Your task to perform on an android device: Open wifi settings Image 0: 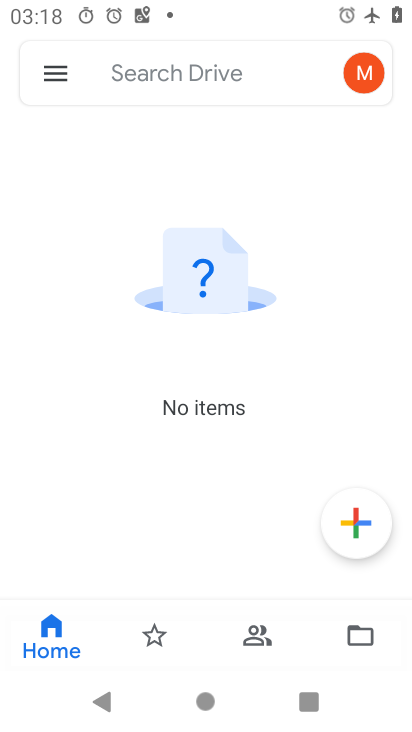
Step 0: press home button
Your task to perform on an android device: Open wifi settings Image 1: 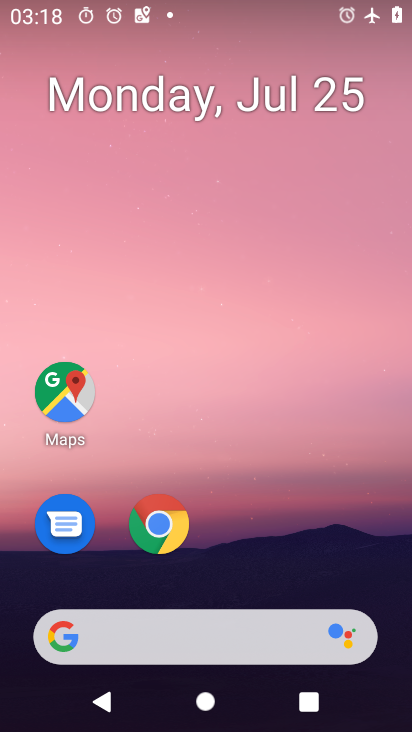
Step 1: drag from (243, 595) to (237, 10)
Your task to perform on an android device: Open wifi settings Image 2: 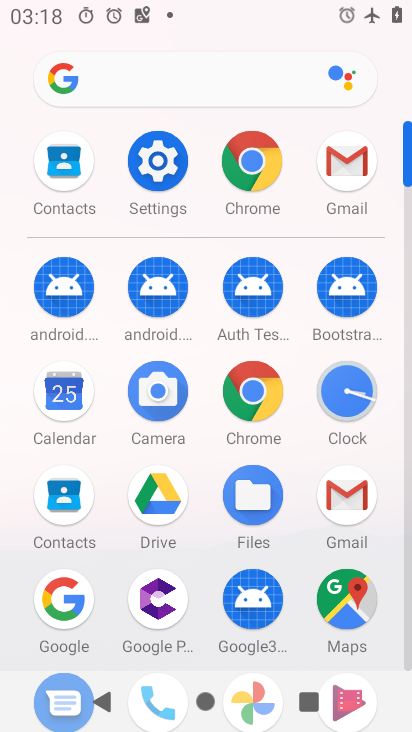
Step 2: click (156, 160)
Your task to perform on an android device: Open wifi settings Image 3: 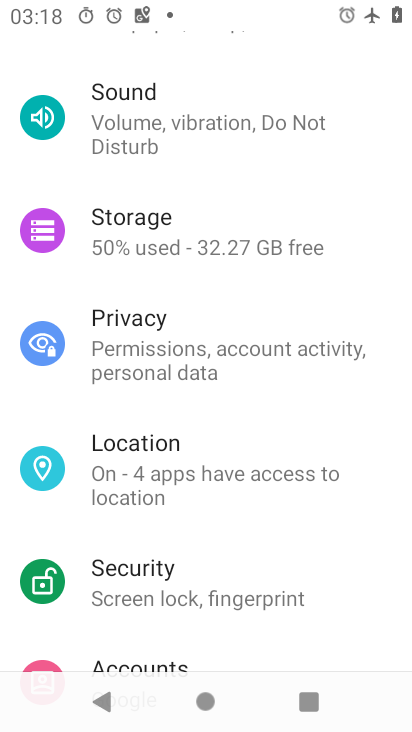
Step 3: drag from (318, 160) to (254, 712)
Your task to perform on an android device: Open wifi settings Image 4: 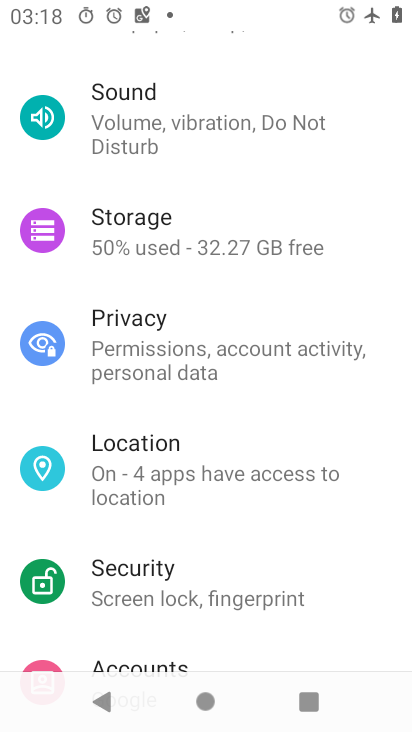
Step 4: drag from (238, 151) to (217, 663)
Your task to perform on an android device: Open wifi settings Image 5: 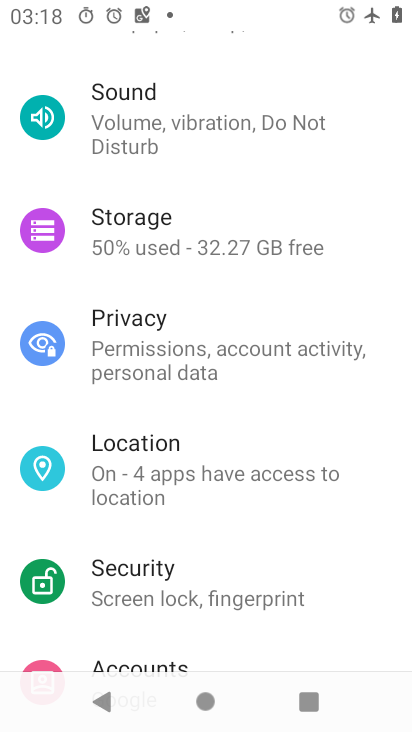
Step 5: drag from (237, 179) to (79, 724)
Your task to perform on an android device: Open wifi settings Image 6: 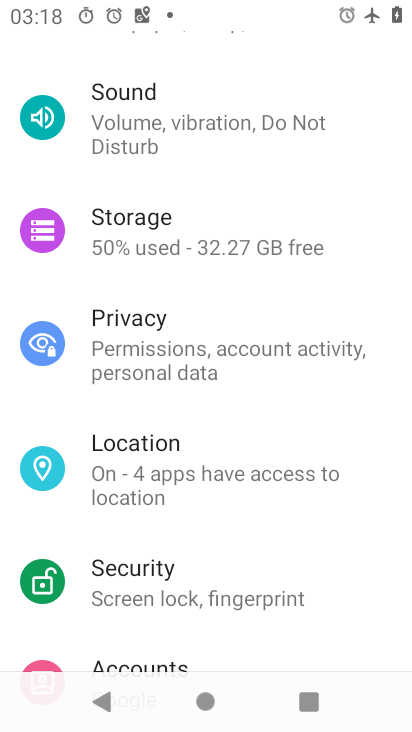
Step 6: drag from (276, 87) to (213, 688)
Your task to perform on an android device: Open wifi settings Image 7: 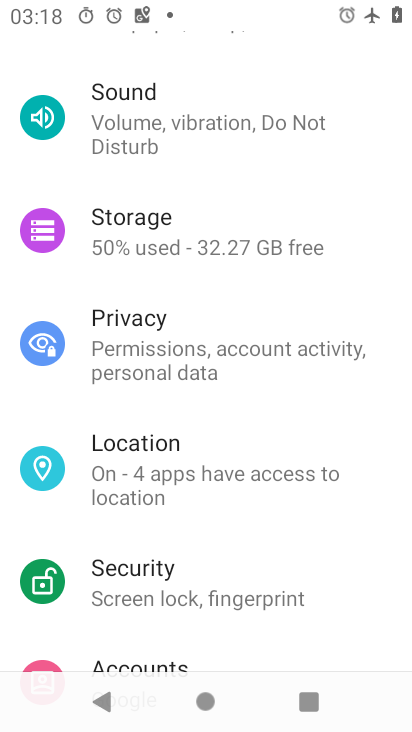
Step 7: drag from (247, 172) to (180, 710)
Your task to perform on an android device: Open wifi settings Image 8: 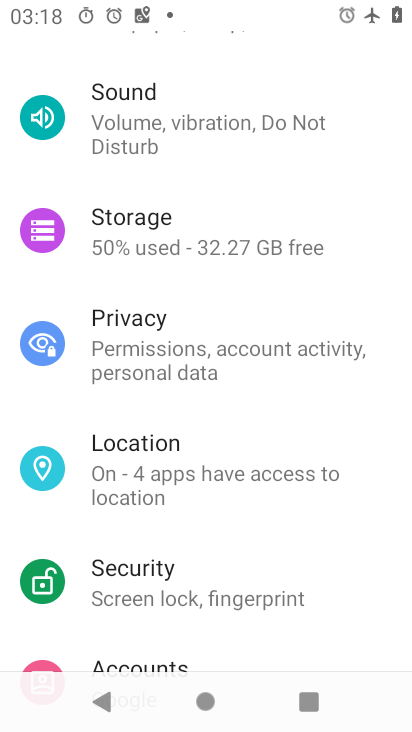
Step 8: drag from (188, 160) to (260, 727)
Your task to perform on an android device: Open wifi settings Image 9: 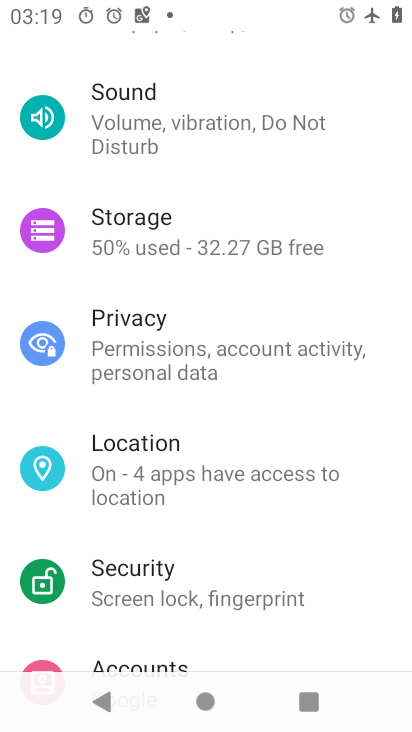
Step 9: drag from (183, 140) to (271, 655)
Your task to perform on an android device: Open wifi settings Image 10: 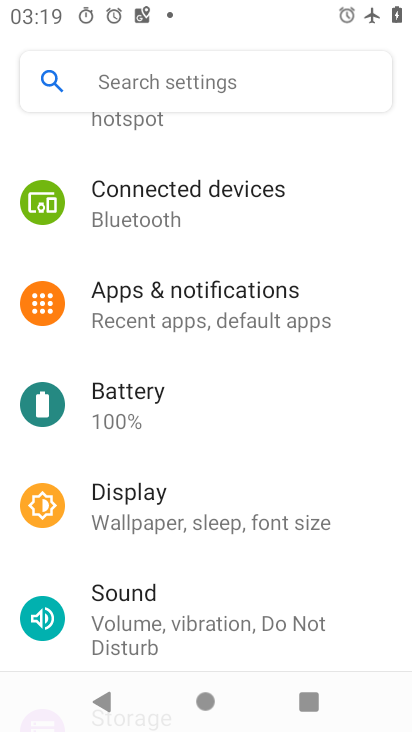
Step 10: drag from (224, 142) to (263, 731)
Your task to perform on an android device: Open wifi settings Image 11: 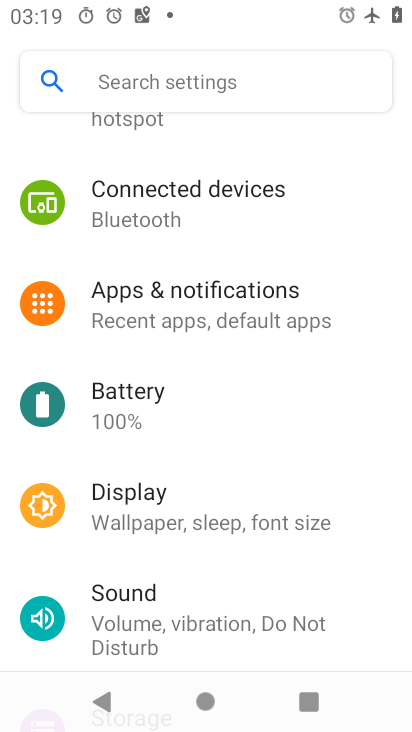
Step 11: drag from (213, 145) to (265, 724)
Your task to perform on an android device: Open wifi settings Image 12: 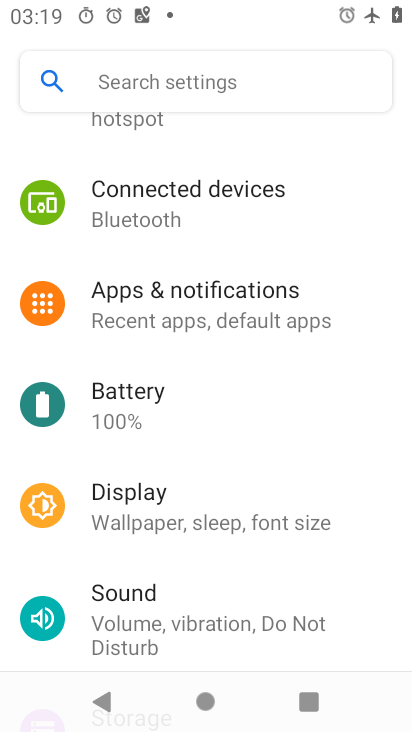
Step 12: drag from (123, 152) to (153, 618)
Your task to perform on an android device: Open wifi settings Image 13: 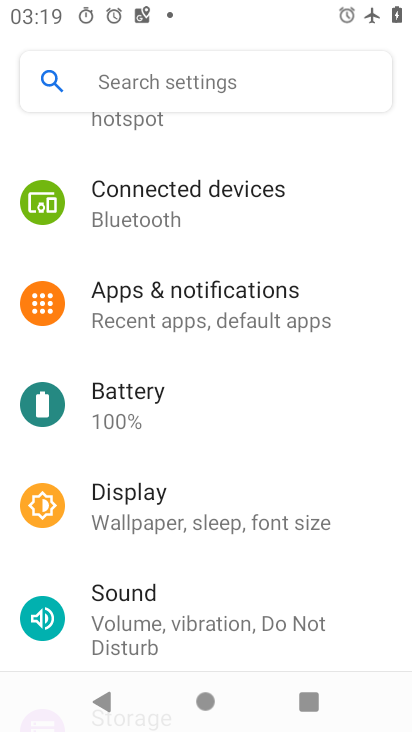
Step 13: drag from (238, 224) to (81, 704)
Your task to perform on an android device: Open wifi settings Image 14: 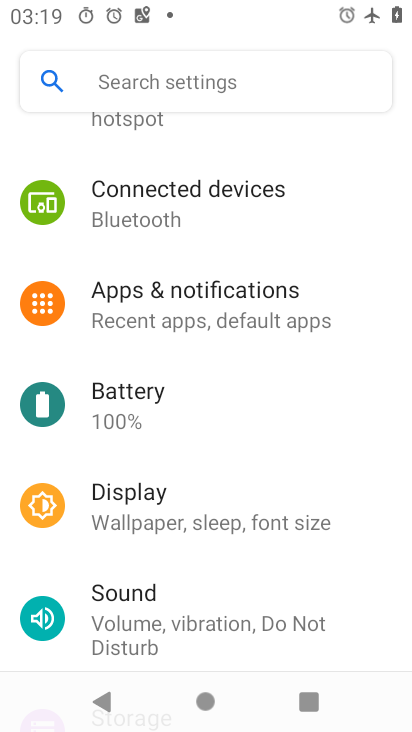
Step 14: drag from (218, 353) to (192, 607)
Your task to perform on an android device: Open wifi settings Image 15: 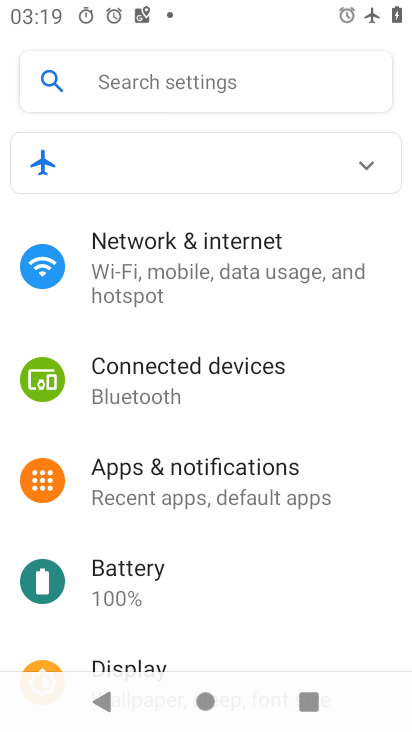
Step 15: click (155, 284)
Your task to perform on an android device: Open wifi settings Image 16: 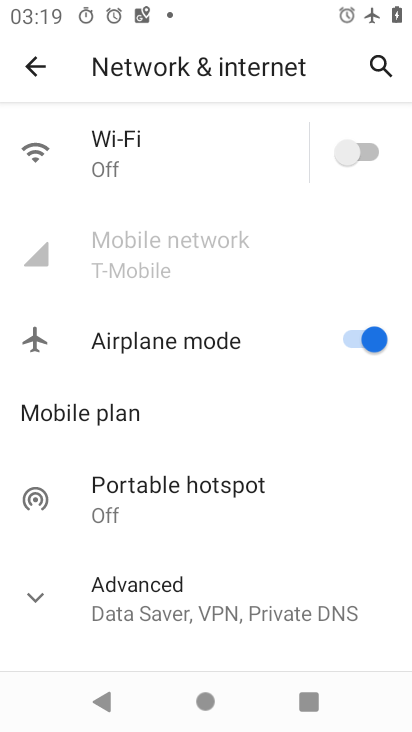
Step 16: click (112, 135)
Your task to perform on an android device: Open wifi settings Image 17: 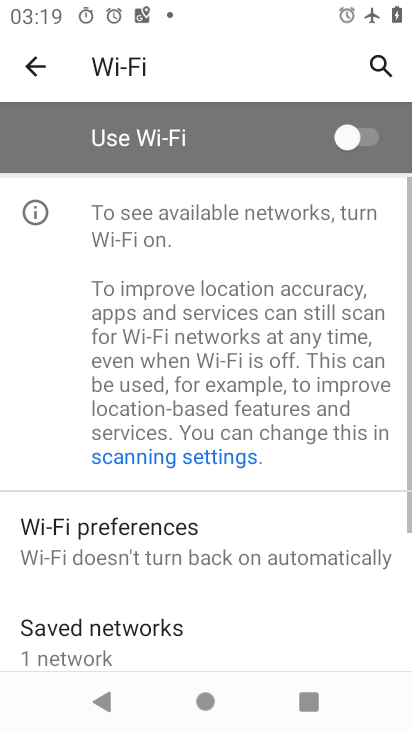
Step 17: click (163, 132)
Your task to perform on an android device: Open wifi settings Image 18: 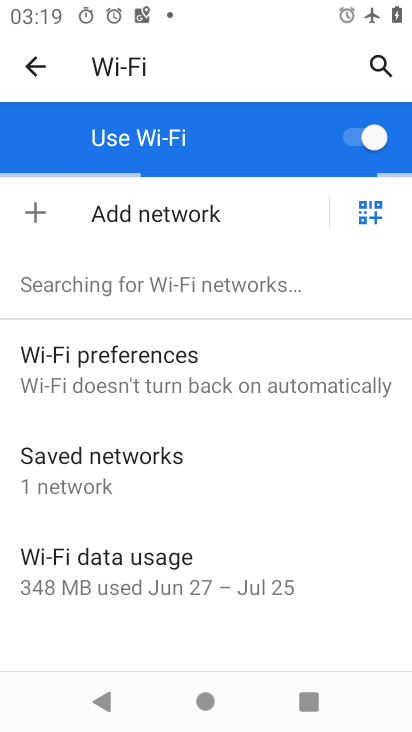
Step 18: task complete